Your task to perform on an android device: Open eBay Image 0: 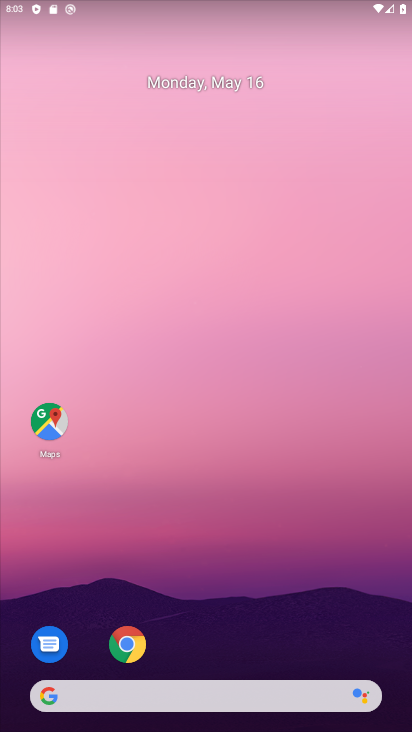
Step 0: click (231, 692)
Your task to perform on an android device: Open eBay Image 1: 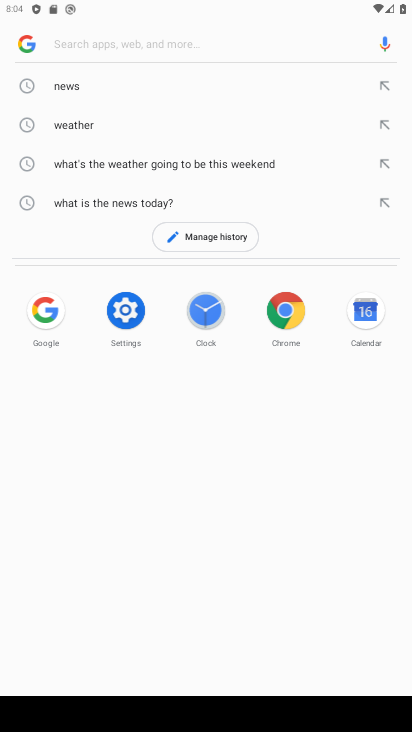
Step 1: type "ebay"
Your task to perform on an android device: Open eBay Image 2: 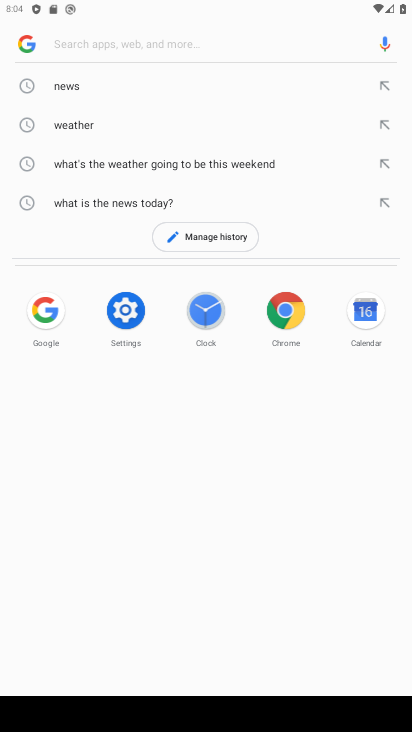
Step 2: click (190, 45)
Your task to perform on an android device: Open eBay Image 3: 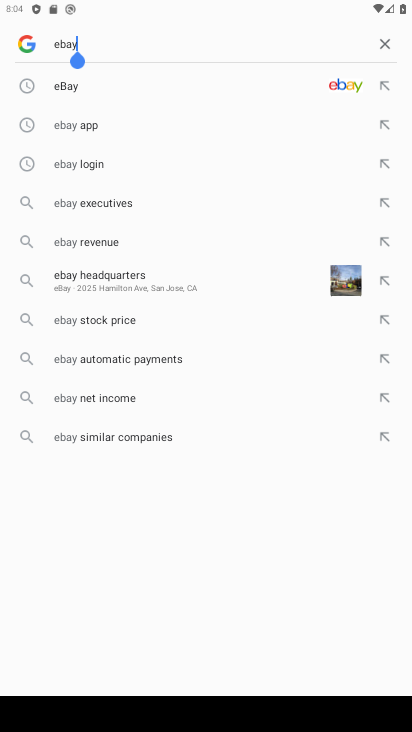
Step 3: type "ebay"
Your task to perform on an android device: Open eBay Image 4: 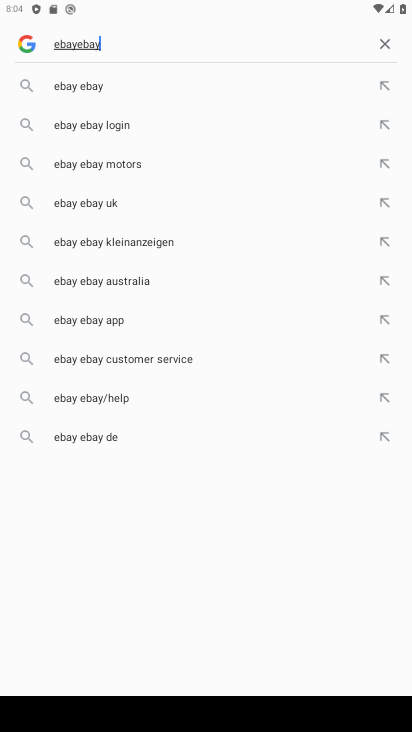
Step 4: click (386, 46)
Your task to perform on an android device: Open eBay Image 5: 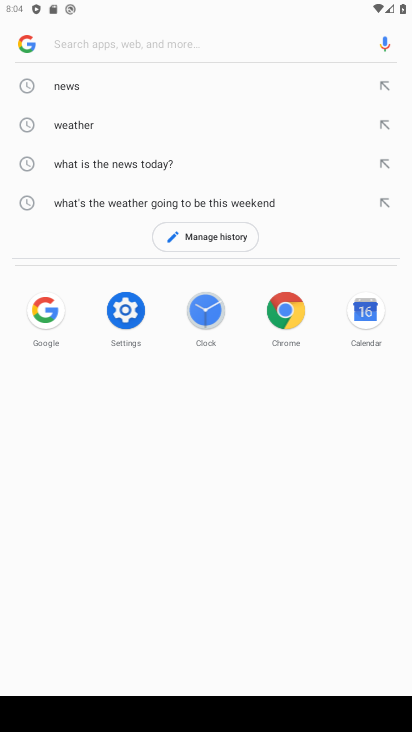
Step 5: type "ebay"
Your task to perform on an android device: Open eBay Image 6: 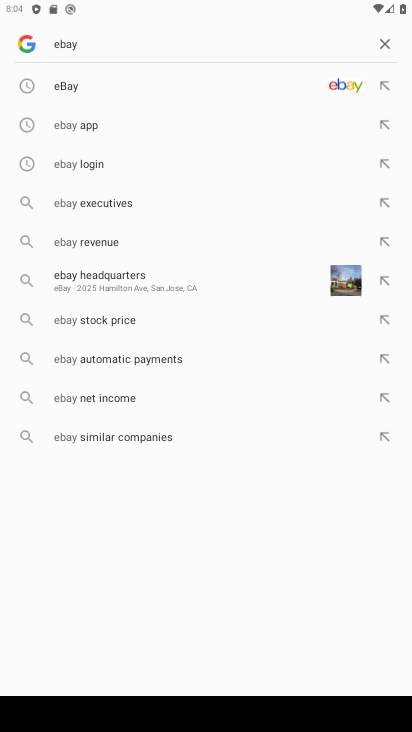
Step 6: click (341, 79)
Your task to perform on an android device: Open eBay Image 7: 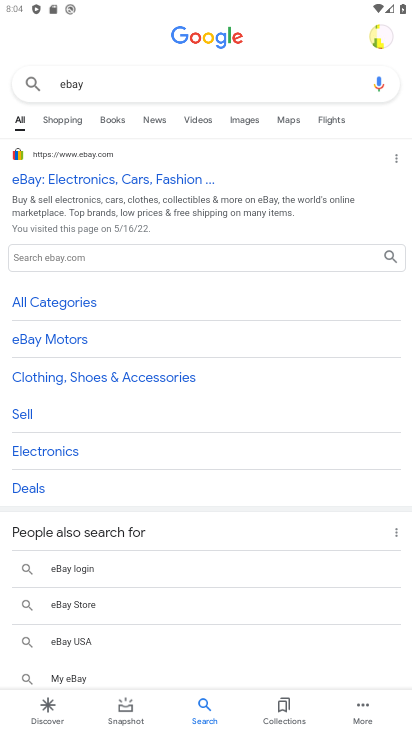
Step 7: click (88, 145)
Your task to perform on an android device: Open eBay Image 8: 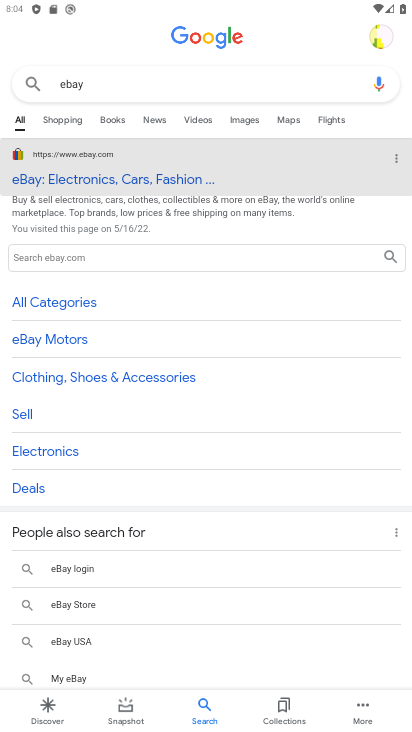
Step 8: click (101, 171)
Your task to perform on an android device: Open eBay Image 9: 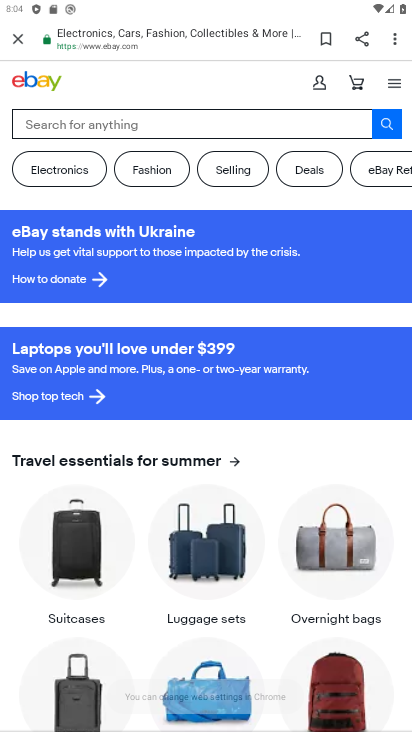
Step 9: task complete